Your task to perform on an android device: change text size in settings app Image 0: 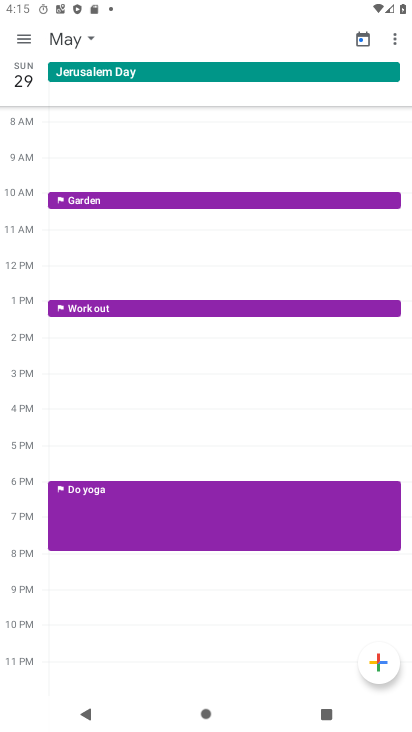
Step 0: press home button
Your task to perform on an android device: change text size in settings app Image 1: 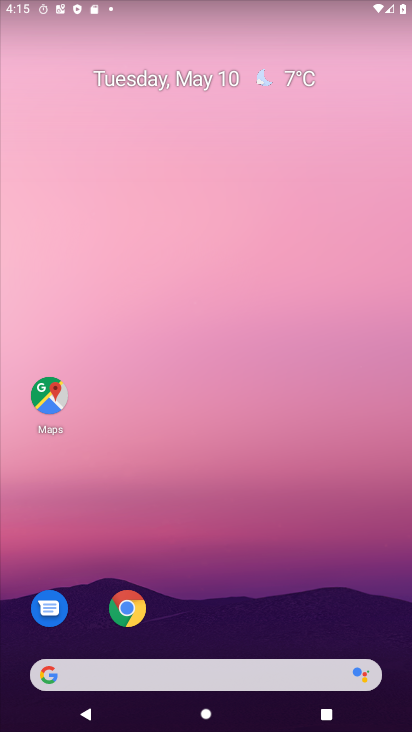
Step 1: drag from (269, 637) to (288, 10)
Your task to perform on an android device: change text size in settings app Image 2: 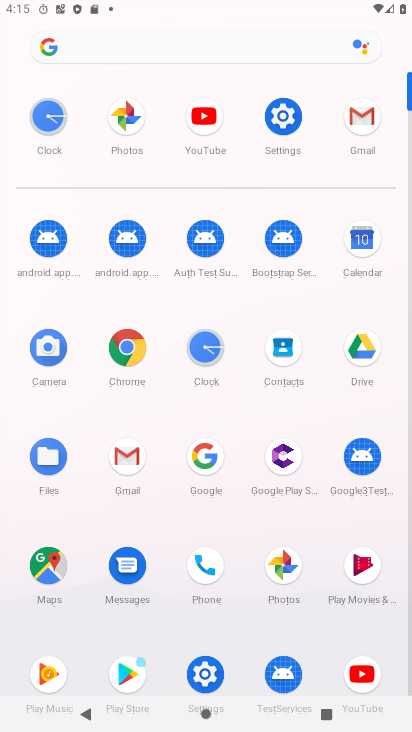
Step 2: click (277, 120)
Your task to perform on an android device: change text size in settings app Image 3: 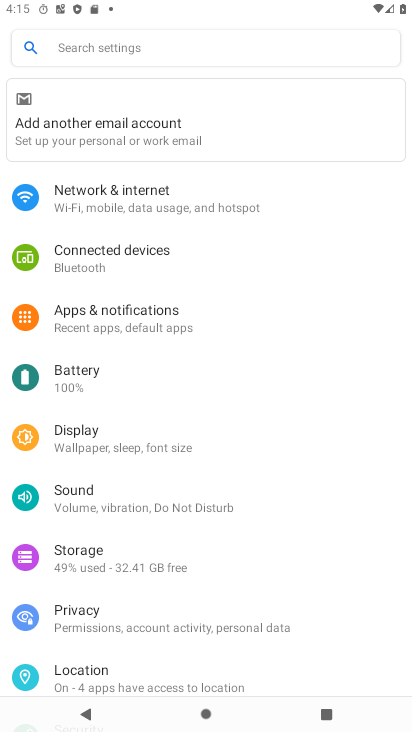
Step 3: click (67, 431)
Your task to perform on an android device: change text size in settings app Image 4: 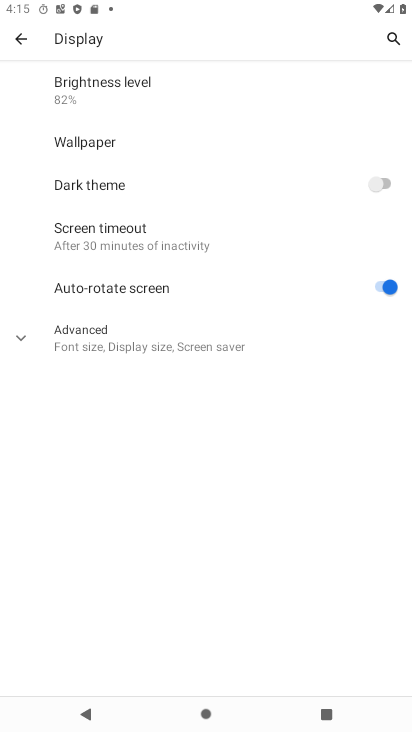
Step 4: click (17, 345)
Your task to perform on an android device: change text size in settings app Image 5: 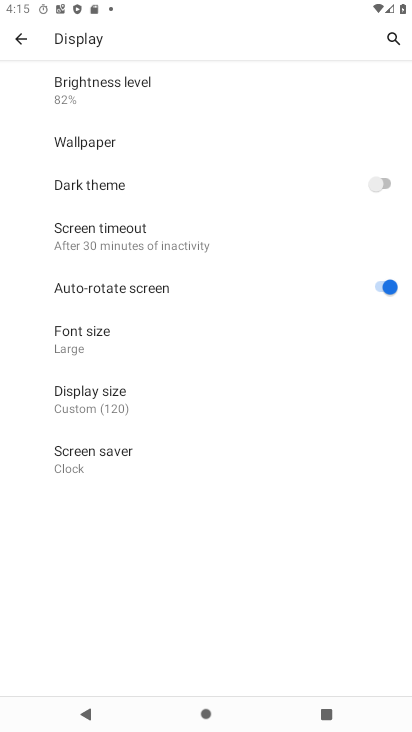
Step 5: click (78, 353)
Your task to perform on an android device: change text size in settings app Image 6: 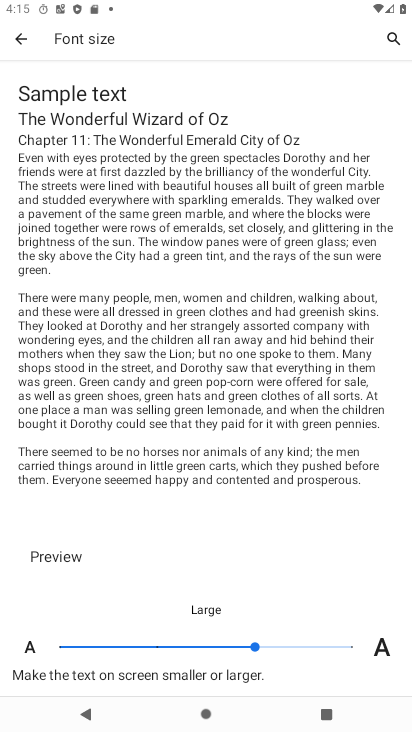
Step 6: click (159, 651)
Your task to perform on an android device: change text size in settings app Image 7: 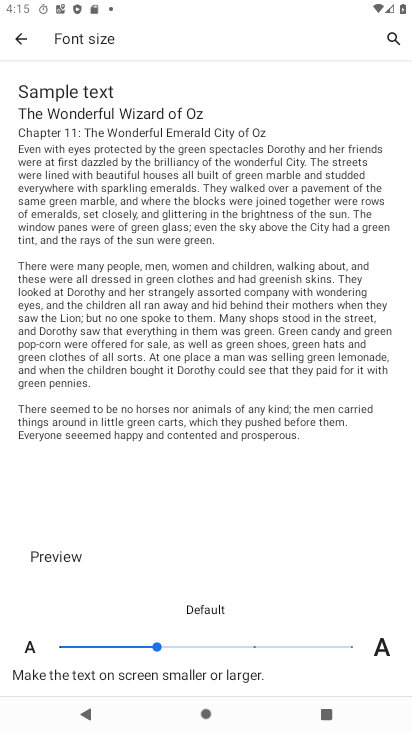
Step 7: click (156, 647)
Your task to perform on an android device: change text size in settings app Image 8: 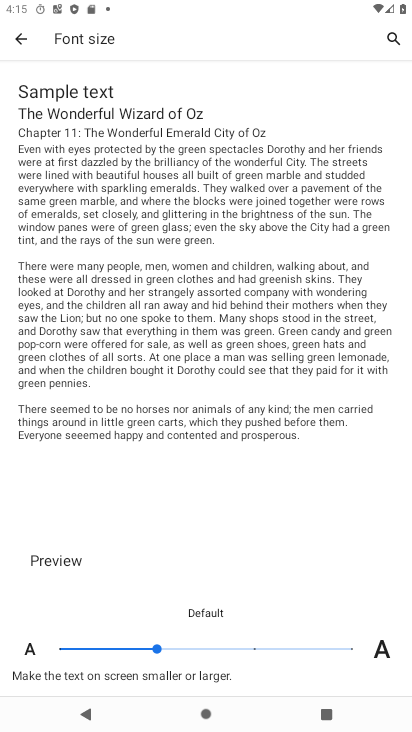
Step 8: task complete